Your task to perform on an android device: delete the emails in spam in the gmail app Image 0: 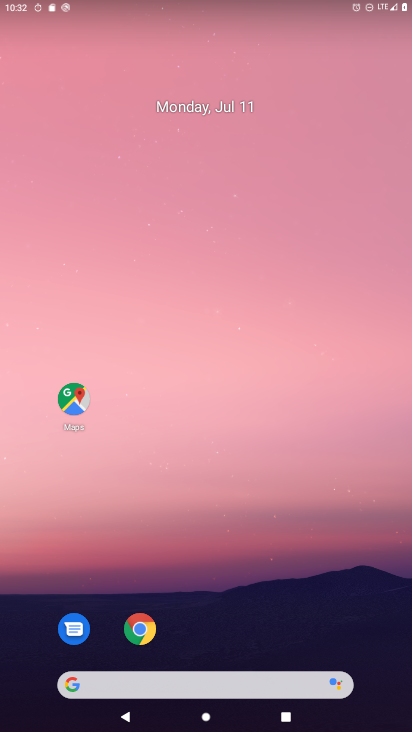
Step 0: drag from (212, 640) to (191, 144)
Your task to perform on an android device: delete the emails in spam in the gmail app Image 1: 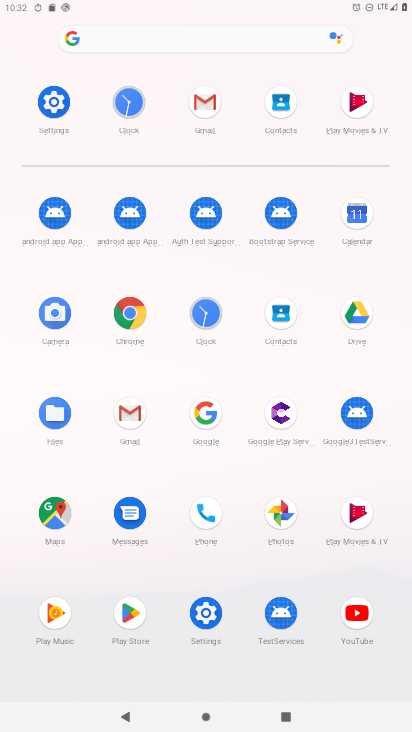
Step 1: click (211, 118)
Your task to perform on an android device: delete the emails in spam in the gmail app Image 2: 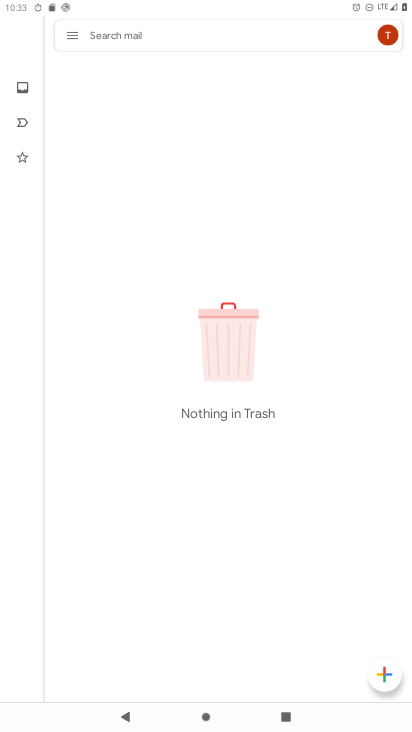
Step 2: click (71, 20)
Your task to perform on an android device: delete the emails in spam in the gmail app Image 3: 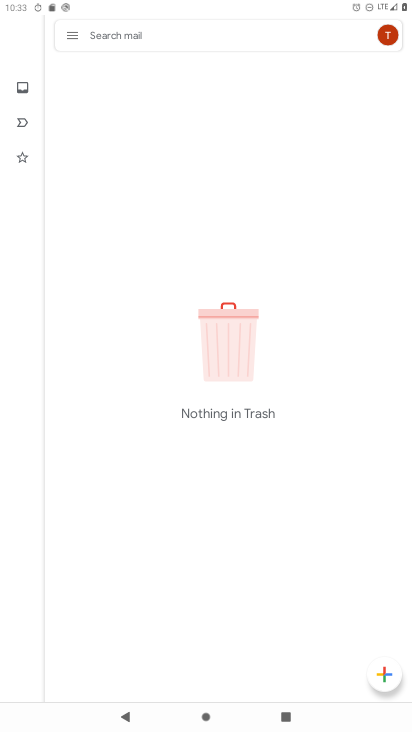
Step 3: click (72, 30)
Your task to perform on an android device: delete the emails in spam in the gmail app Image 4: 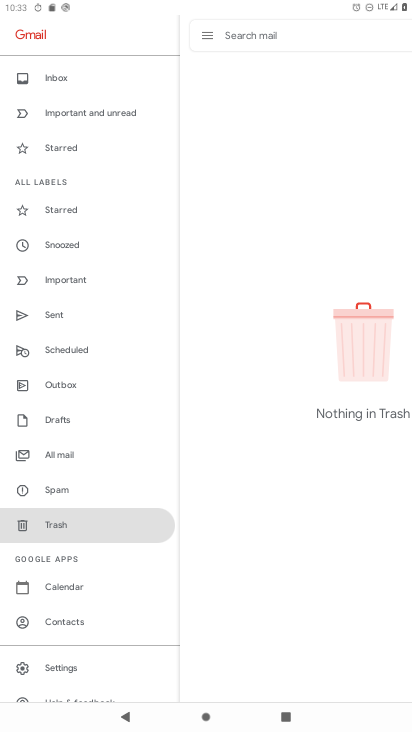
Step 4: click (47, 460)
Your task to perform on an android device: delete the emails in spam in the gmail app Image 5: 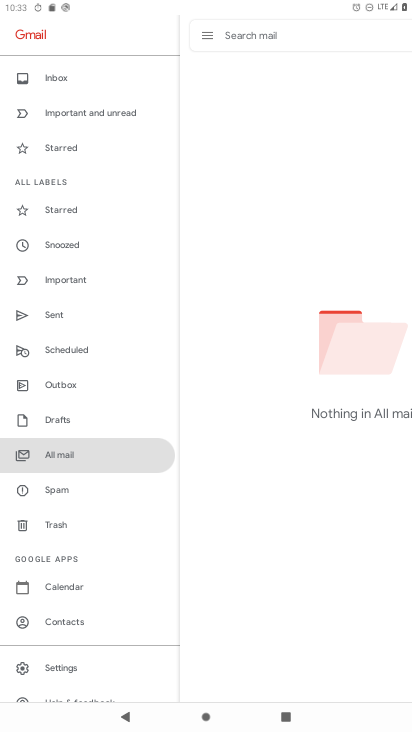
Step 5: task complete